Your task to perform on an android device: see tabs open on other devices in the chrome app Image 0: 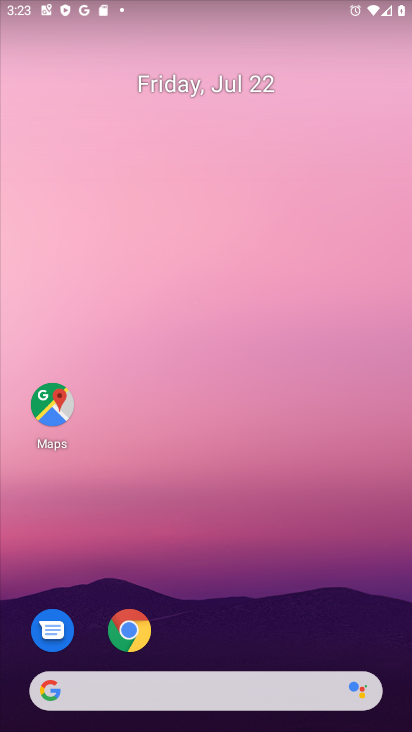
Step 0: click (123, 629)
Your task to perform on an android device: see tabs open on other devices in the chrome app Image 1: 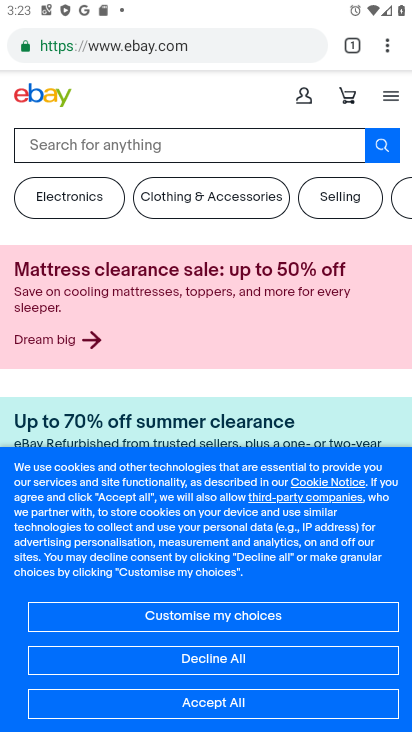
Step 1: click (380, 44)
Your task to perform on an android device: see tabs open on other devices in the chrome app Image 2: 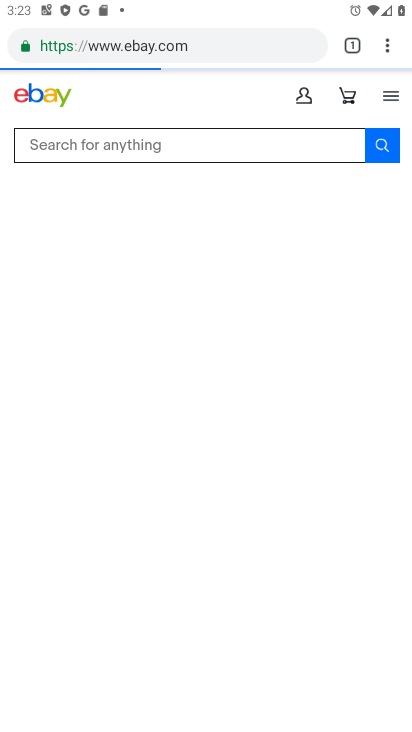
Step 2: task complete